Your task to perform on an android device: Open Google Maps Image 0: 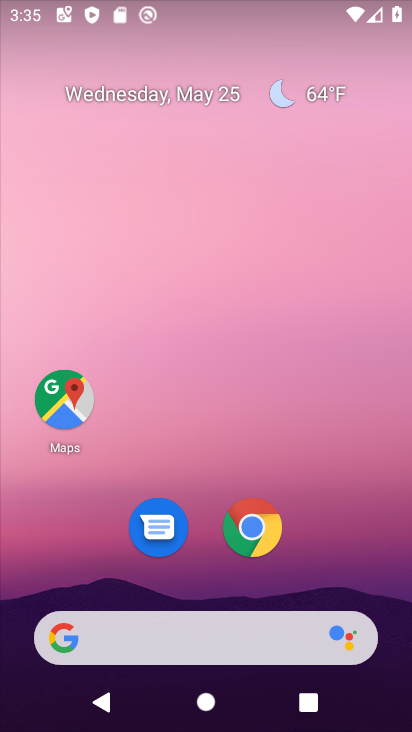
Step 0: click (59, 408)
Your task to perform on an android device: Open Google Maps Image 1: 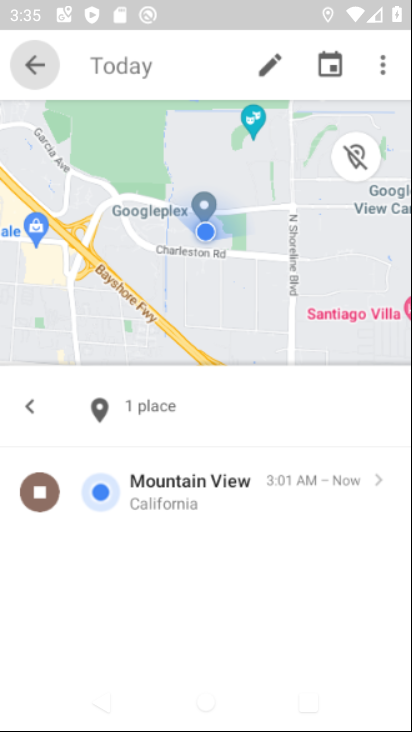
Step 1: task complete